Your task to perform on an android device: turn vacation reply on in the gmail app Image 0: 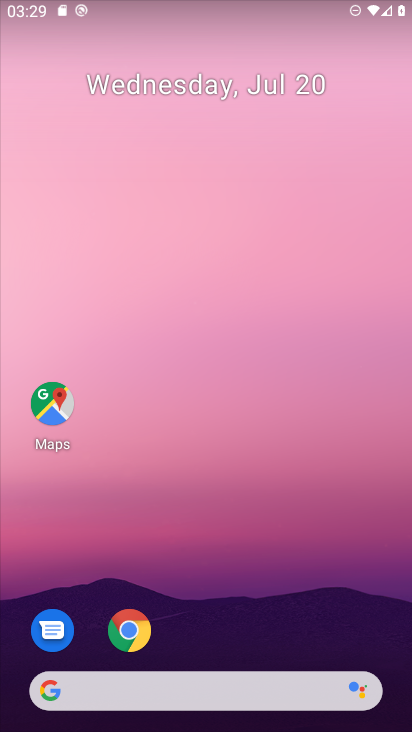
Step 0: drag from (318, 616) to (366, 122)
Your task to perform on an android device: turn vacation reply on in the gmail app Image 1: 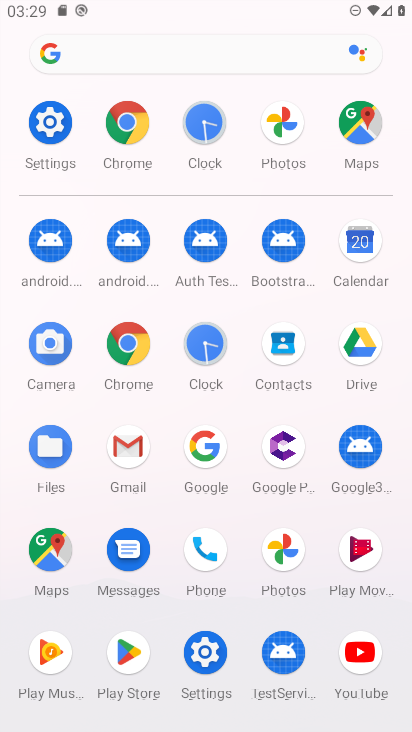
Step 1: click (131, 446)
Your task to perform on an android device: turn vacation reply on in the gmail app Image 2: 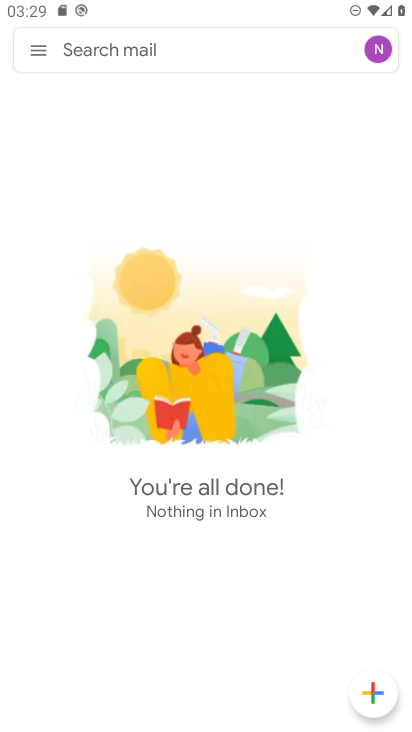
Step 2: click (39, 50)
Your task to perform on an android device: turn vacation reply on in the gmail app Image 3: 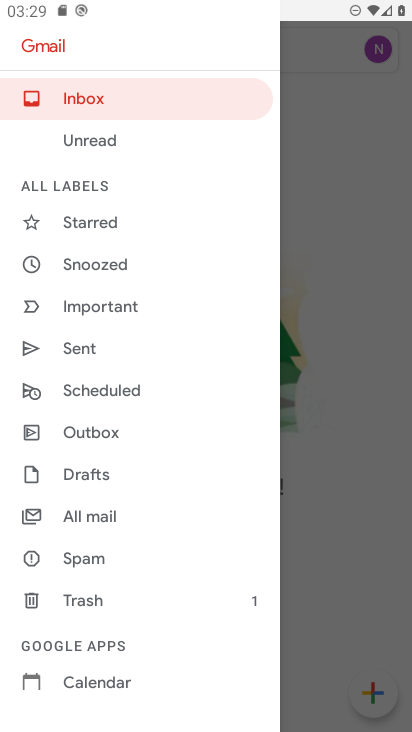
Step 3: drag from (182, 488) to (198, 400)
Your task to perform on an android device: turn vacation reply on in the gmail app Image 4: 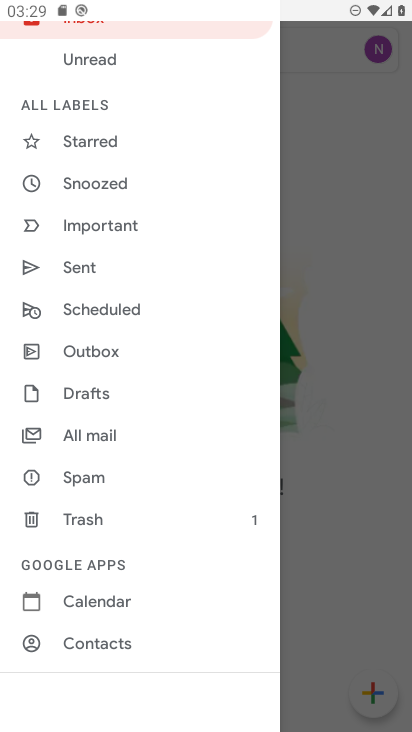
Step 4: drag from (193, 512) to (216, 354)
Your task to perform on an android device: turn vacation reply on in the gmail app Image 5: 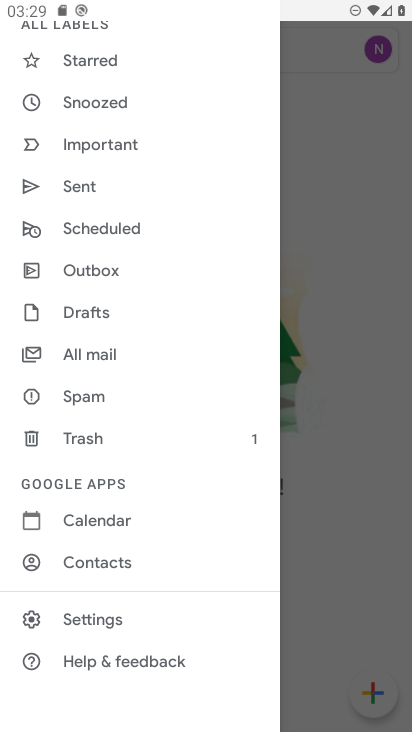
Step 5: click (127, 617)
Your task to perform on an android device: turn vacation reply on in the gmail app Image 6: 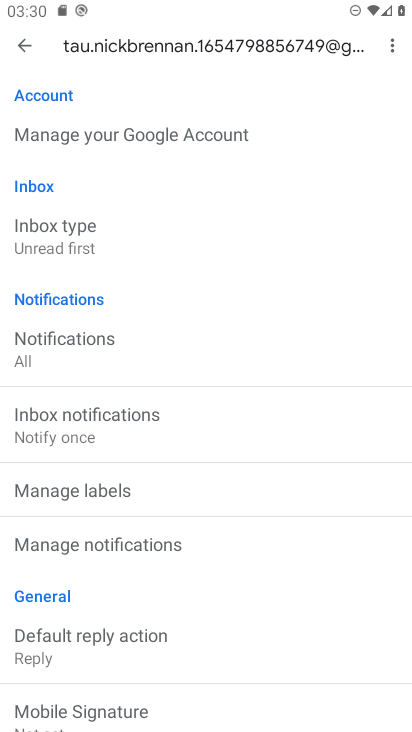
Step 6: drag from (279, 290) to (276, 424)
Your task to perform on an android device: turn vacation reply on in the gmail app Image 7: 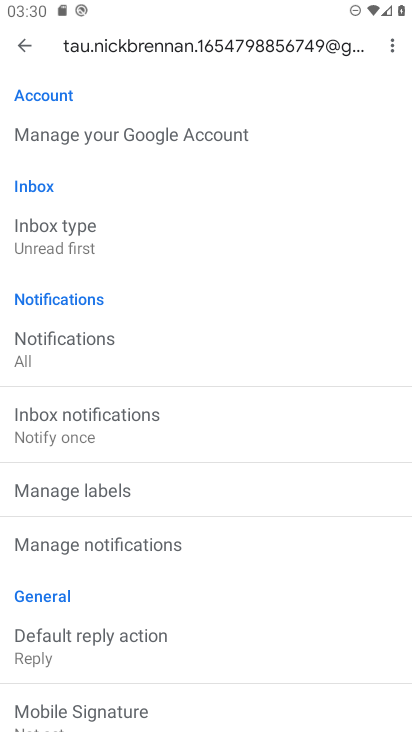
Step 7: drag from (279, 488) to (290, 348)
Your task to perform on an android device: turn vacation reply on in the gmail app Image 8: 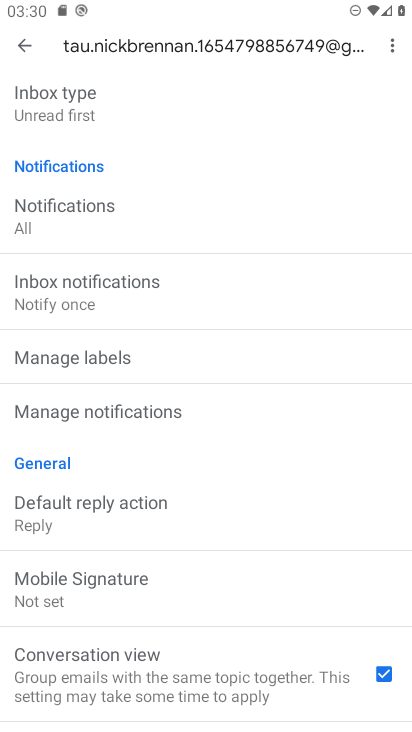
Step 8: drag from (280, 501) to (281, 377)
Your task to perform on an android device: turn vacation reply on in the gmail app Image 9: 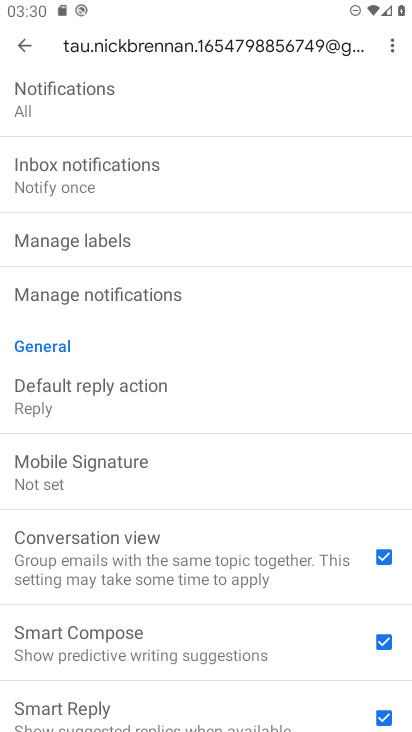
Step 9: drag from (266, 576) to (282, 466)
Your task to perform on an android device: turn vacation reply on in the gmail app Image 10: 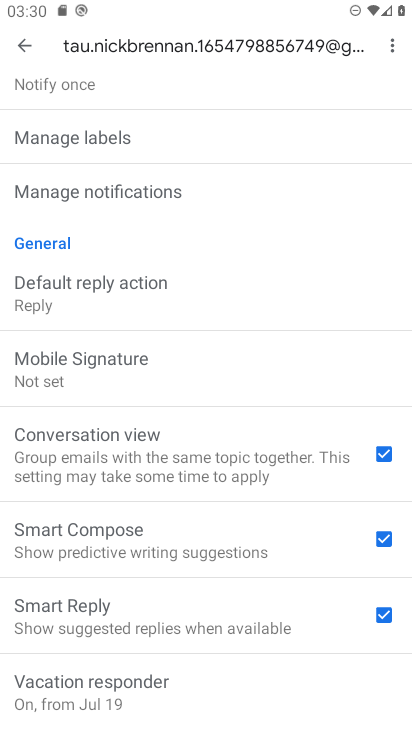
Step 10: drag from (270, 603) to (283, 453)
Your task to perform on an android device: turn vacation reply on in the gmail app Image 11: 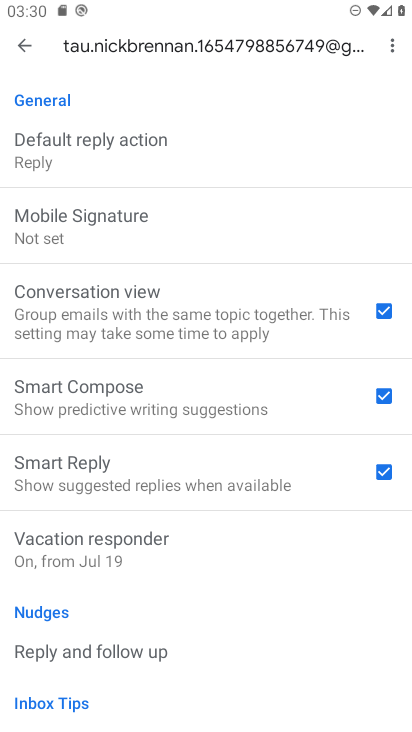
Step 11: click (214, 543)
Your task to perform on an android device: turn vacation reply on in the gmail app Image 12: 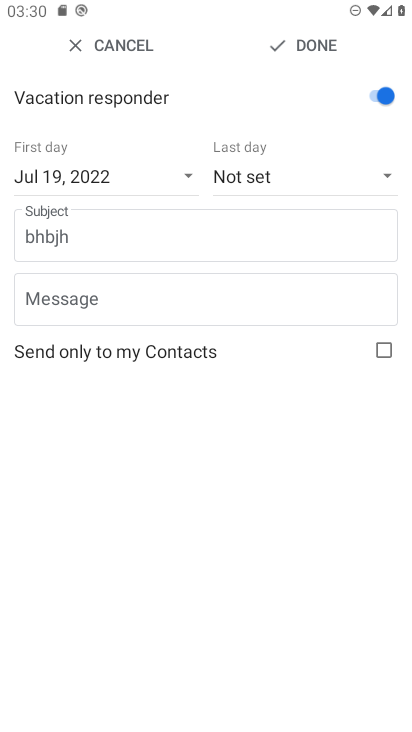
Step 12: task complete